Your task to perform on an android device: Show me productivity apps on the Play Store Image 0: 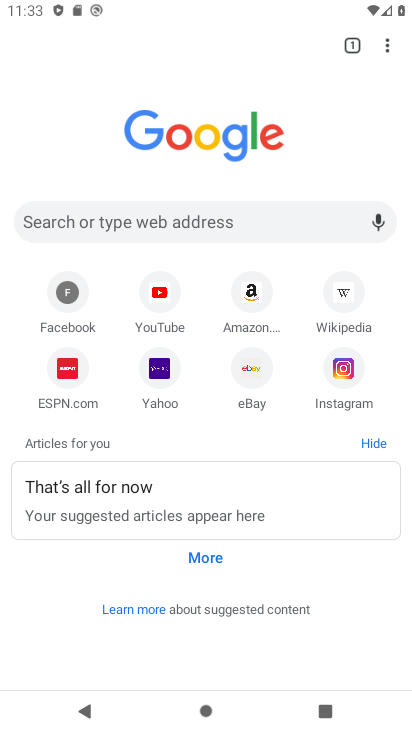
Step 0: press back button
Your task to perform on an android device: Show me productivity apps on the Play Store Image 1: 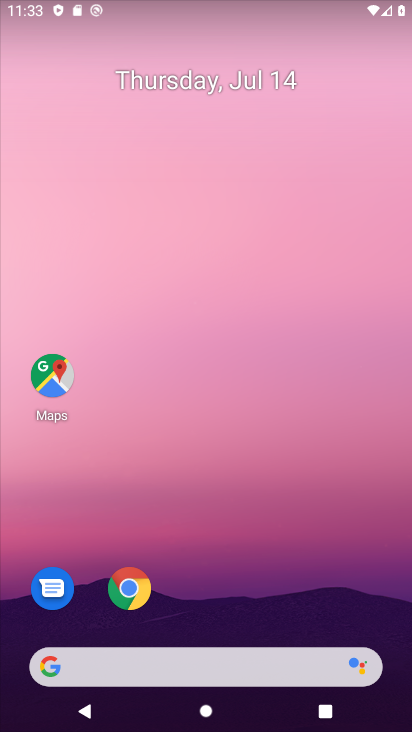
Step 1: drag from (180, 624) to (236, 16)
Your task to perform on an android device: Show me productivity apps on the Play Store Image 2: 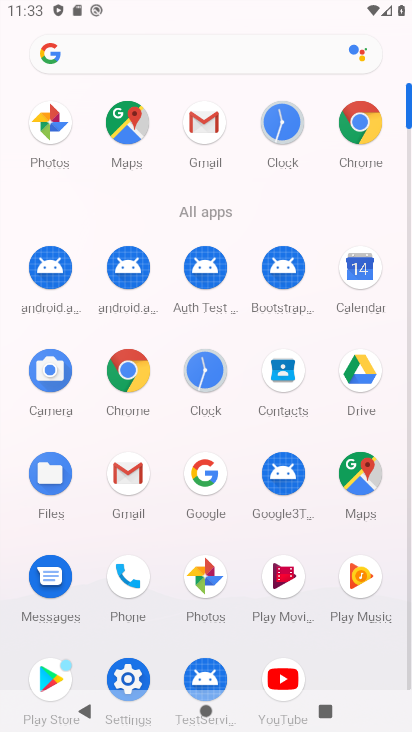
Step 2: click (39, 675)
Your task to perform on an android device: Show me productivity apps on the Play Store Image 3: 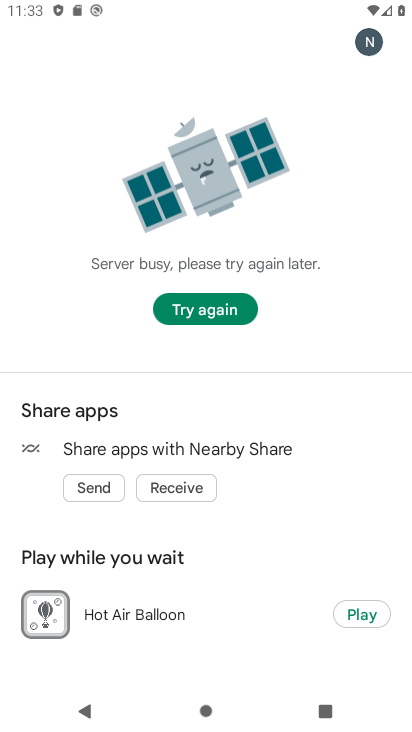
Step 3: task complete